Your task to perform on an android device: change timer sound Image 0: 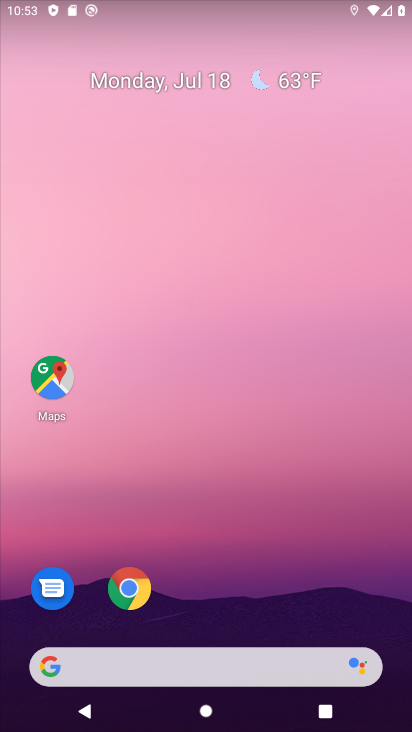
Step 0: drag from (259, 662) to (225, 145)
Your task to perform on an android device: change timer sound Image 1: 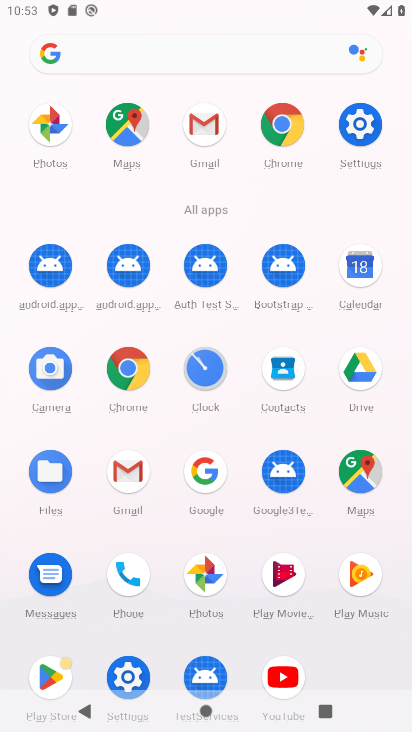
Step 1: click (206, 365)
Your task to perform on an android device: change timer sound Image 2: 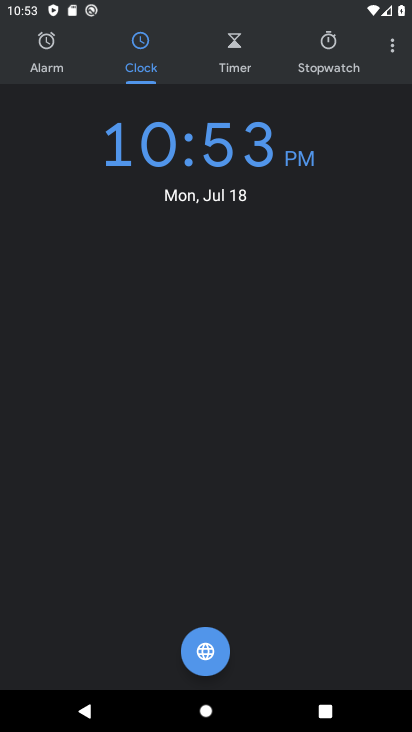
Step 2: click (403, 46)
Your task to perform on an android device: change timer sound Image 3: 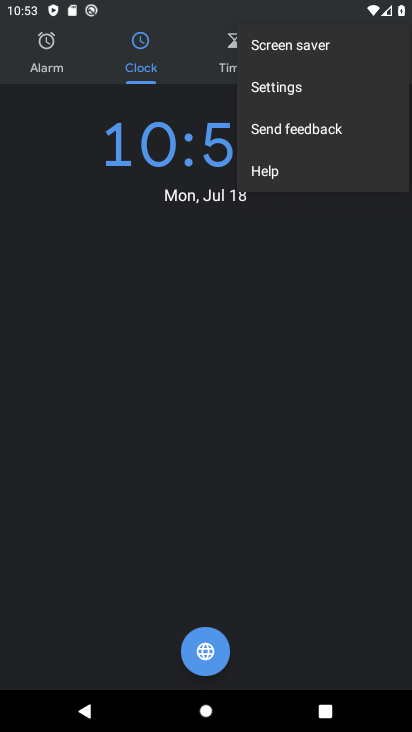
Step 3: click (287, 91)
Your task to perform on an android device: change timer sound Image 4: 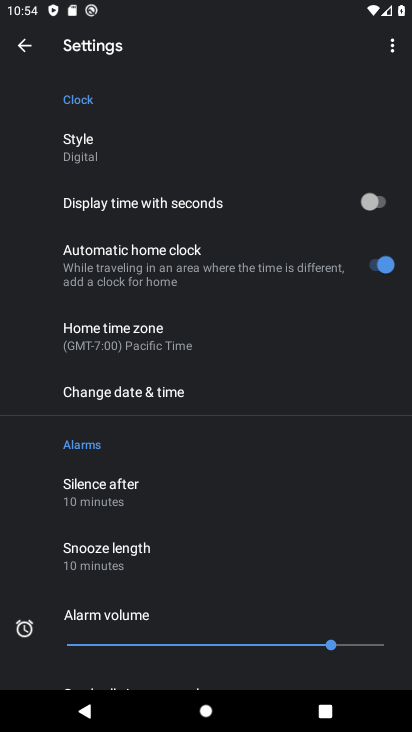
Step 4: drag from (164, 549) to (157, 75)
Your task to perform on an android device: change timer sound Image 5: 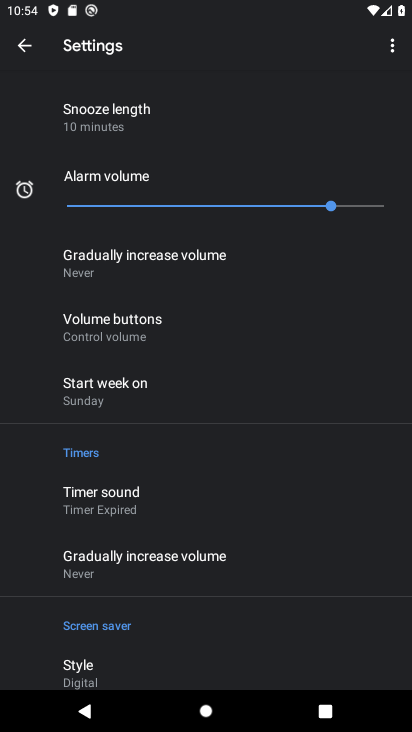
Step 5: click (119, 506)
Your task to perform on an android device: change timer sound Image 6: 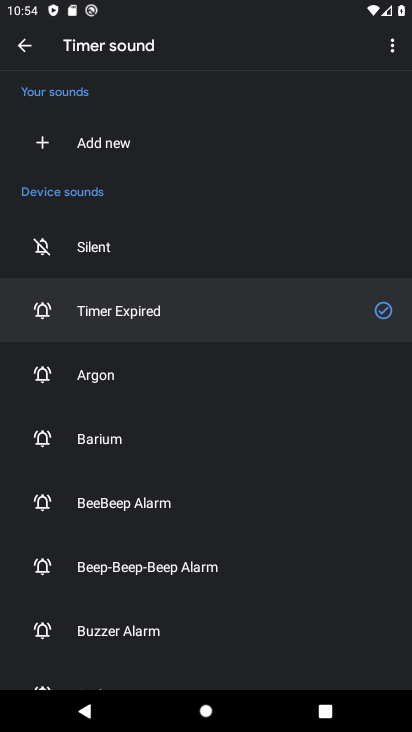
Step 6: click (129, 636)
Your task to perform on an android device: change timer sound Image 7: 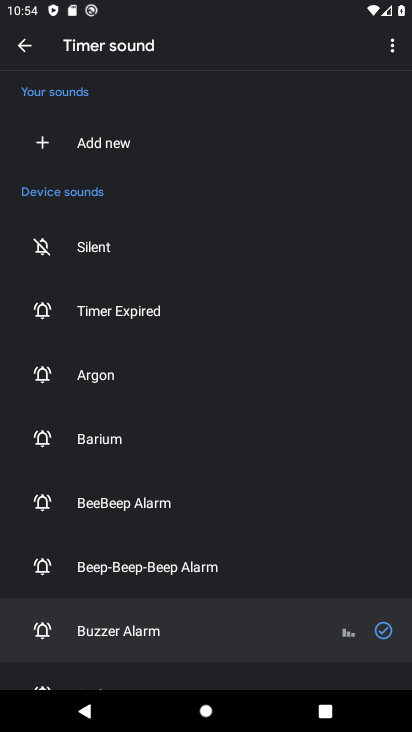
Step 7: task complete